Your task to perform on an android device: open app "Reddit" (install if not already installed) and go to login screen Image 0: 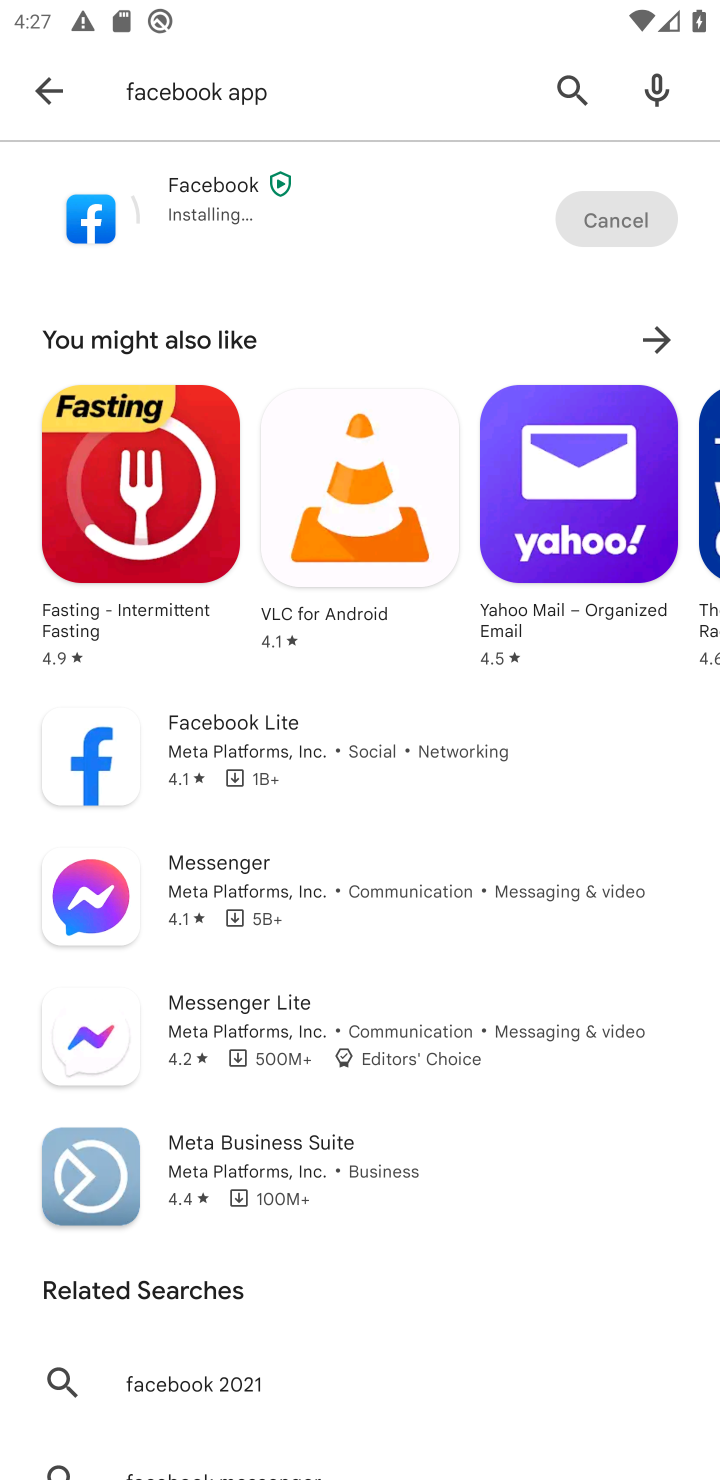
Step 0: click (51, 76)
Your task to perform on an android device: open app "Reddit" (install if not already installed) and go to login screen Image 1: 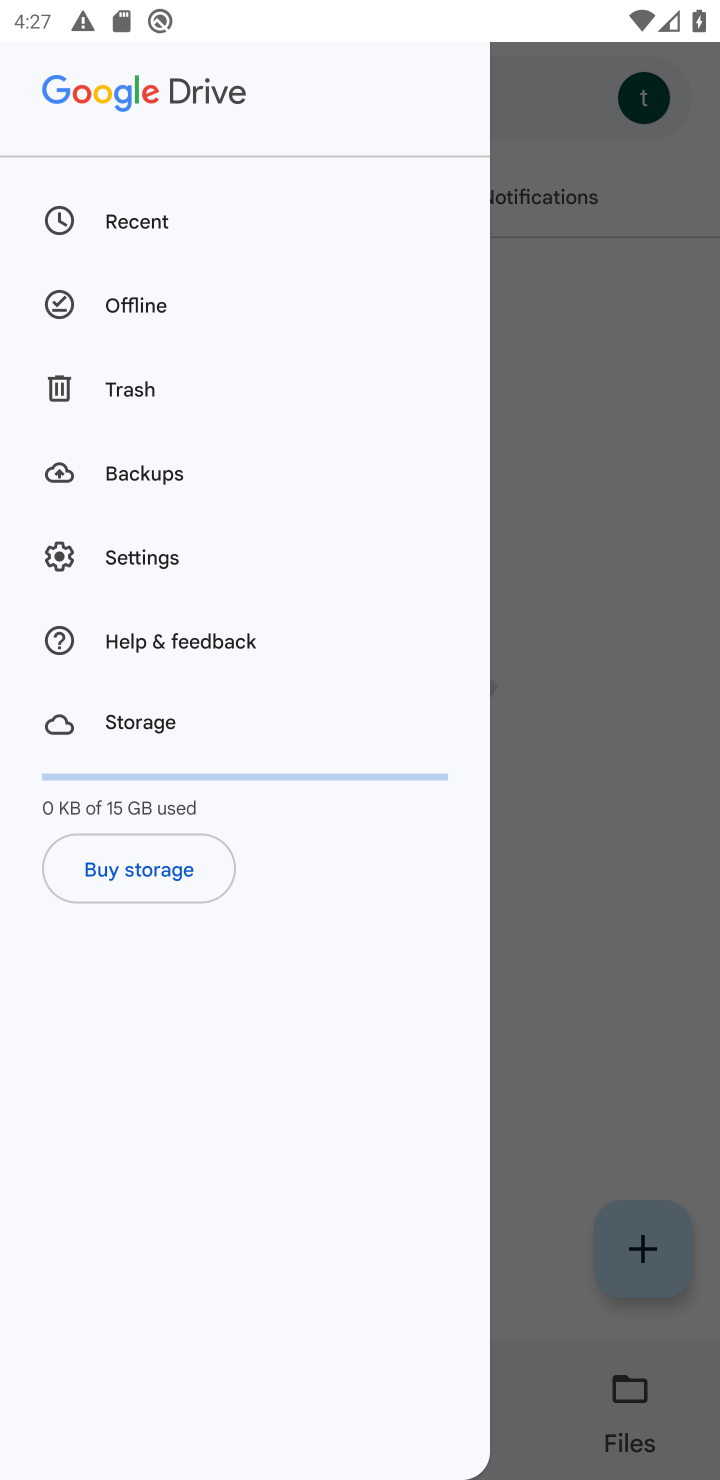
Step 1: click (626, 427)
Your task to perform on an android device: open app "Reddit" (install if not already installed) and go to login screen Image 2: 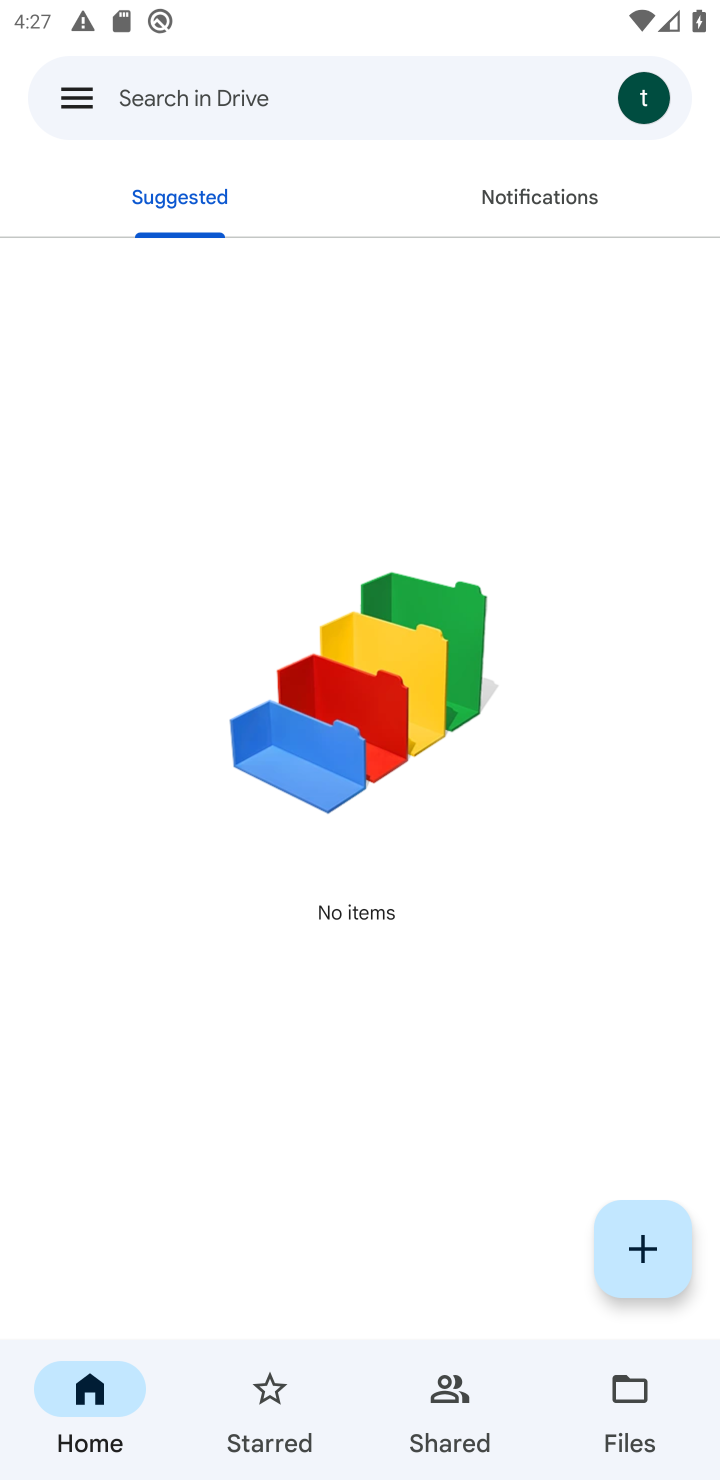
Step 2: press home button
Your task to perform on an android device: open app "Reddit" (install if not already installed) and go to login screen Image 3: 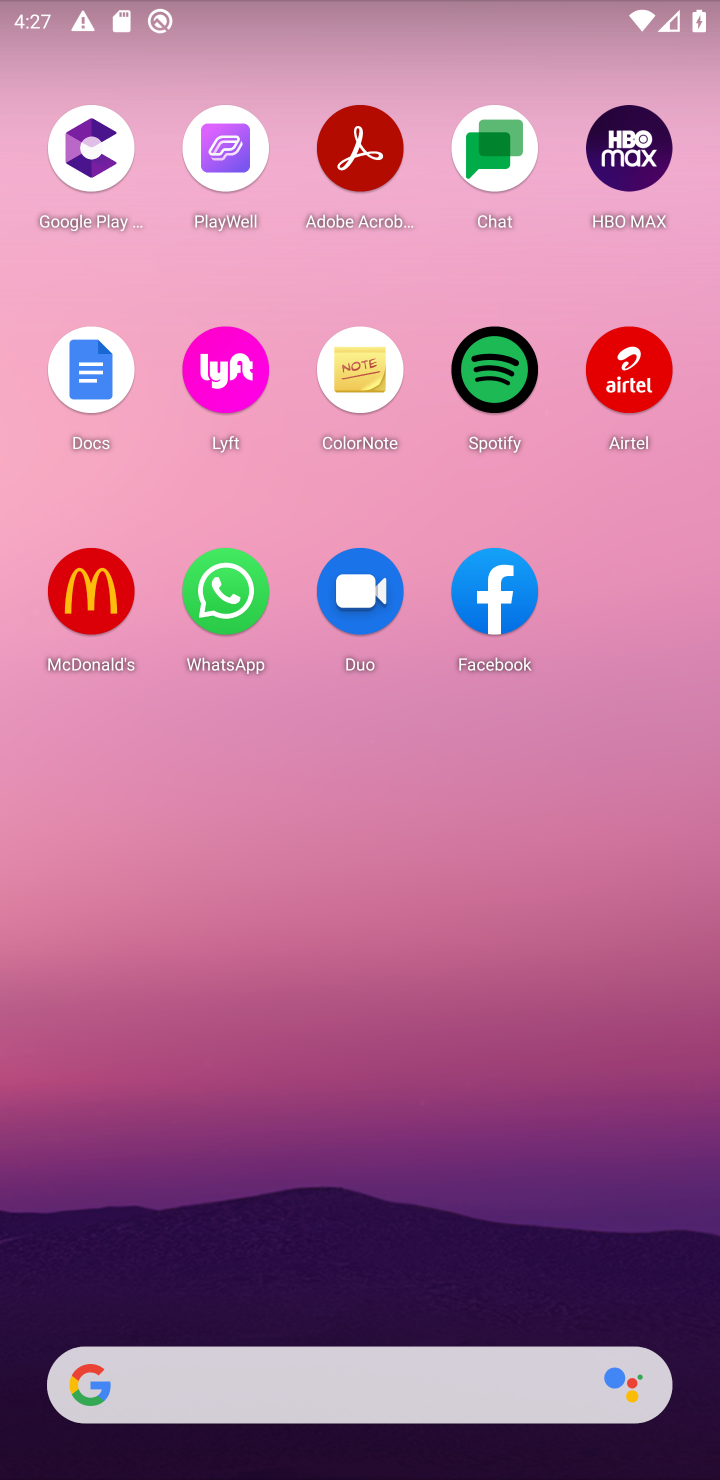
Step 3: drag from (241, 1050) to (308, 616)
Your task to perform on an android device: open app "Reddit" (install if not already installed) and go to login screen Image 4: 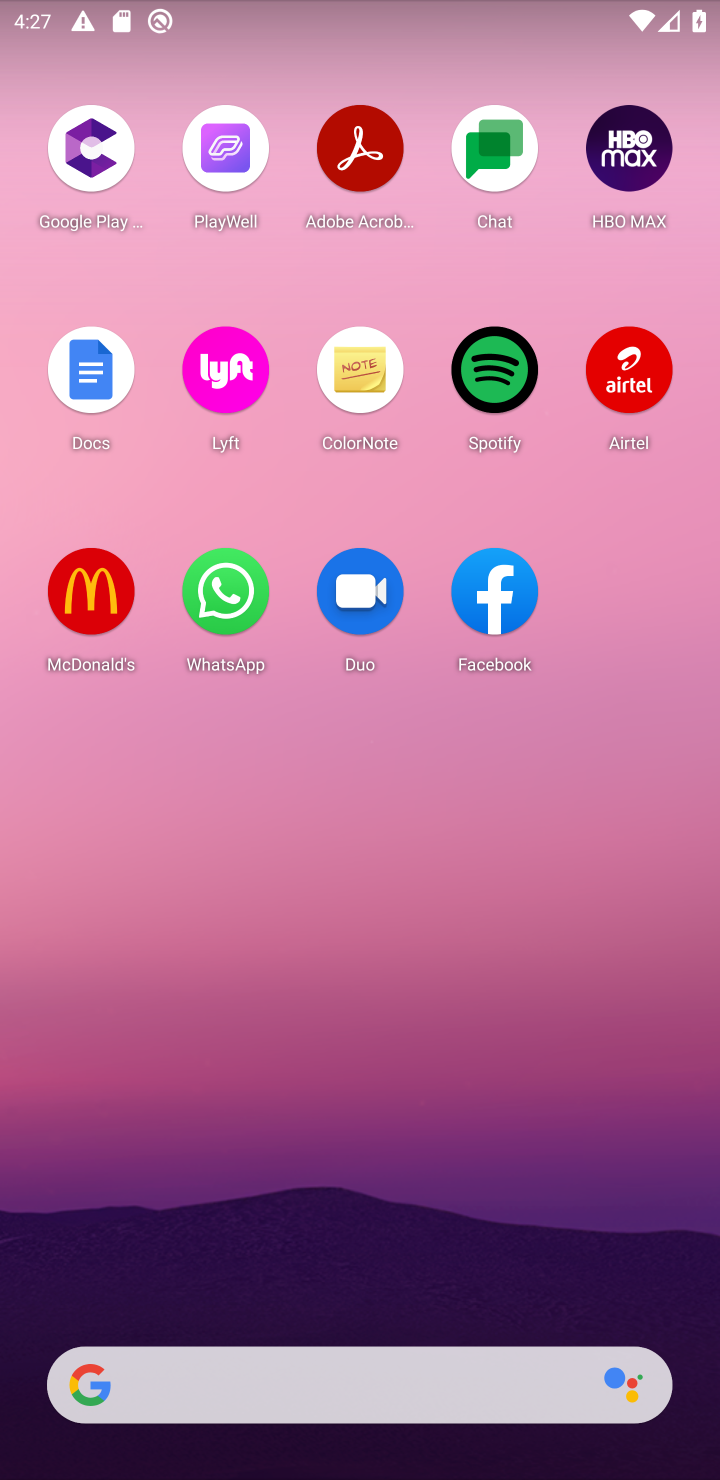
Step 4: drag from (234, 854) to (272, 209)
Your task to perform on an android device: open app "Reddit" (install if not already installed) and go to login screen Image 5: 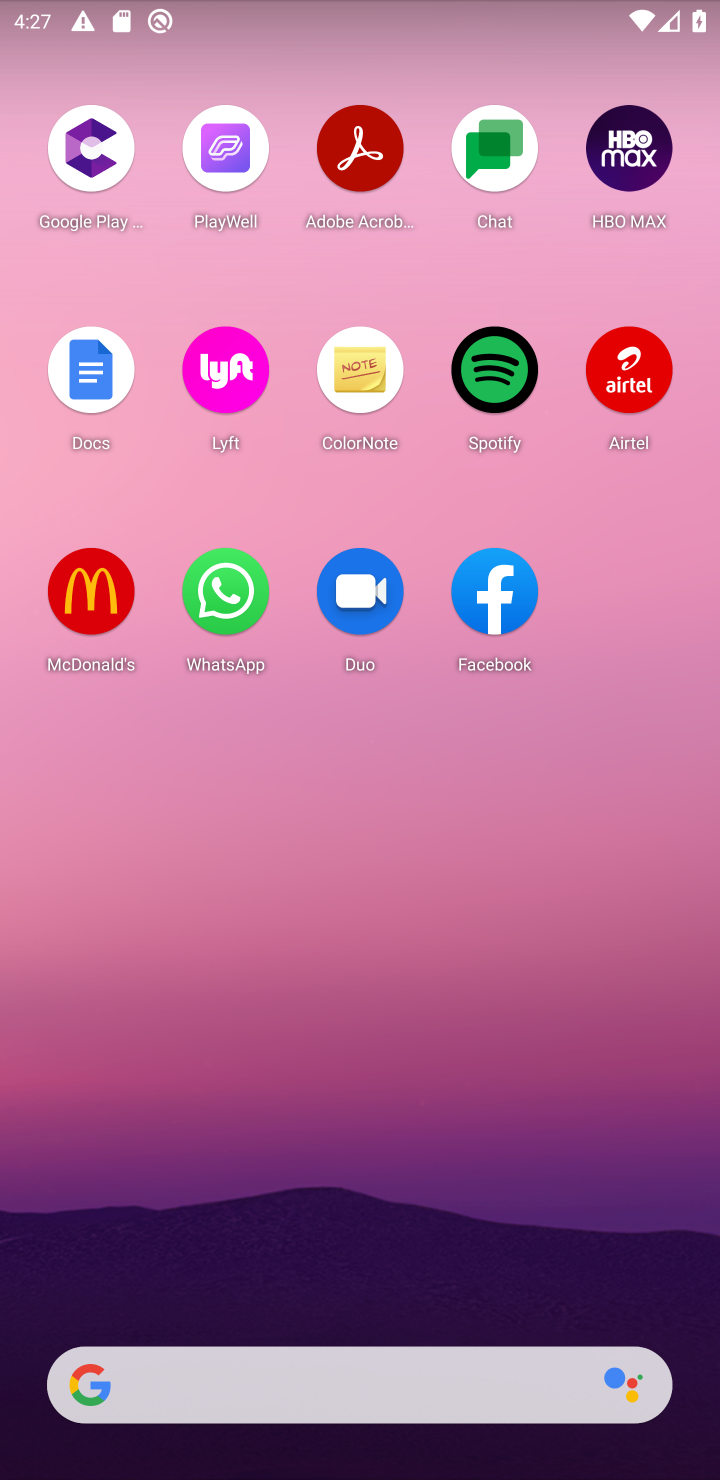
Step 5: drag from (375, 821) to (375, 236)
Your task to perform on an android device: open app "Reddit" (install if not already installed) and go to login screen Image 6: 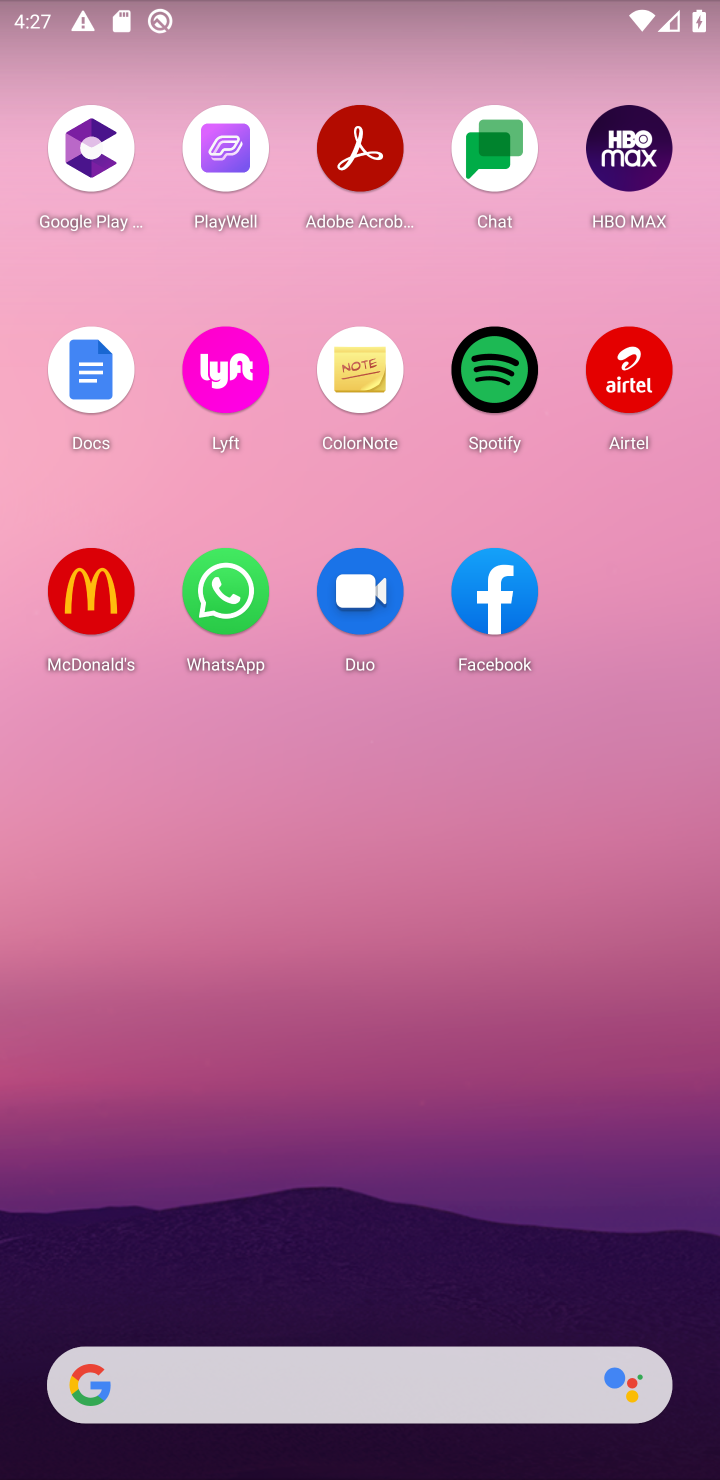
Step 6: drag from (324, 1265) to (311, 289)
Your task to perform on an android device: open app "Reddit" (install if not already installed) and go to login screen Image 7: 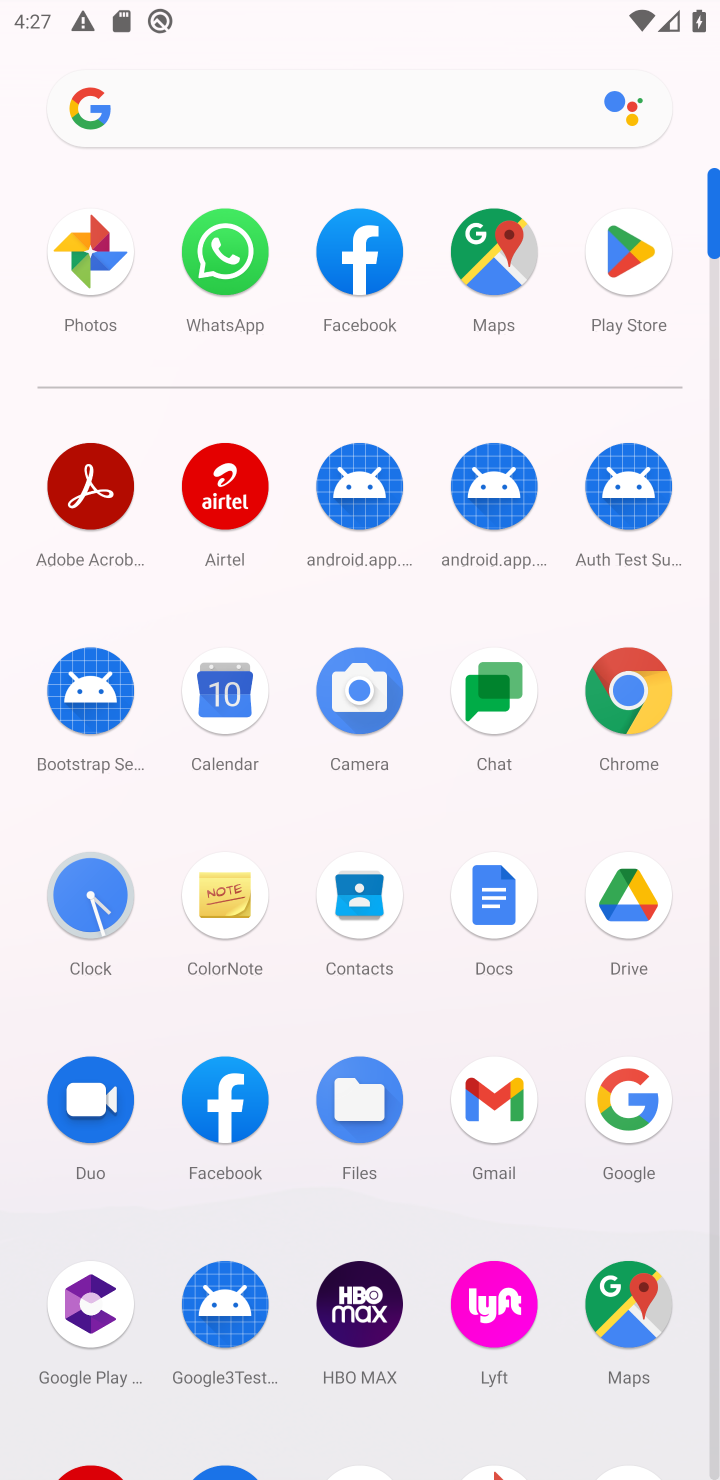
Step 7: click (616, 225)
Your task to perform on an android device: open app "Reddit" (install if not already installed) and go to login screen Image 8: 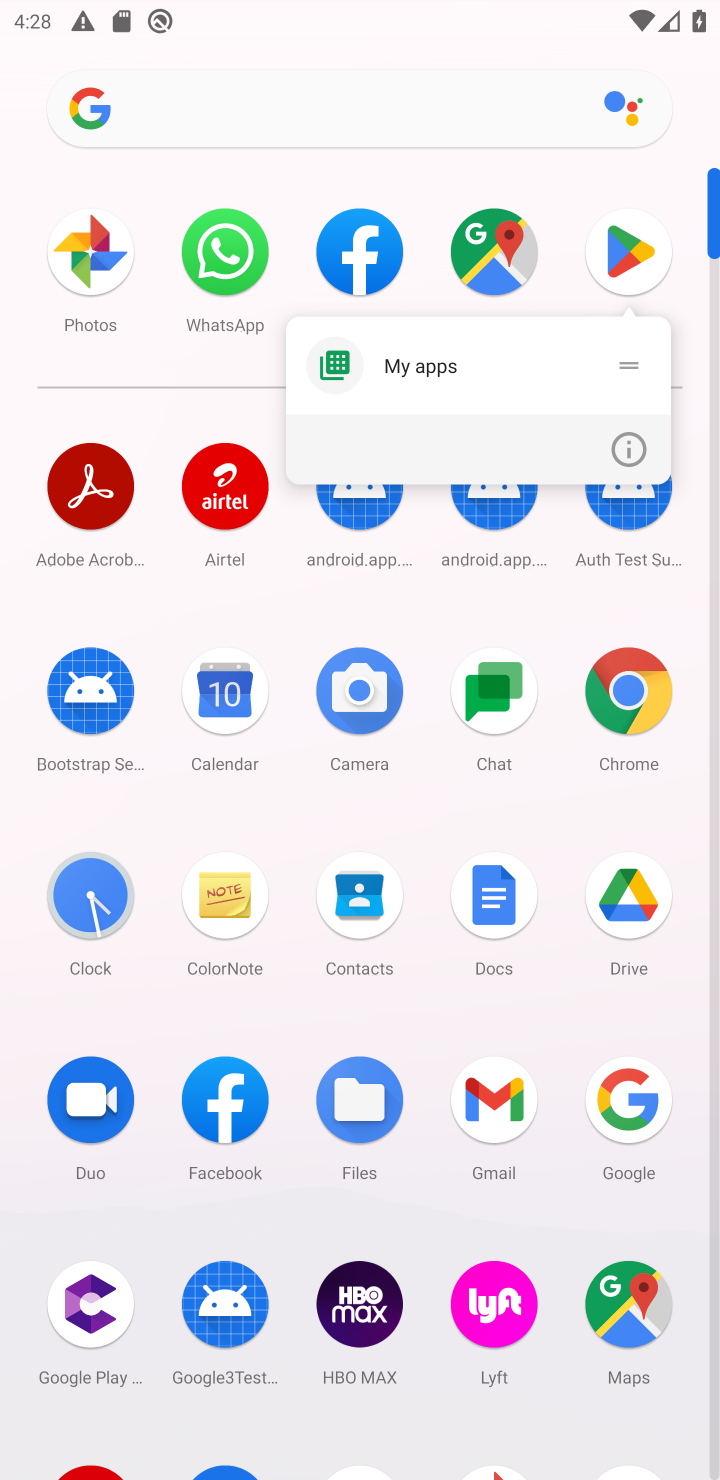
Step 8: click (616, 225)
Your task to perform on an android device: open app "Reddit" (install if not already installed) and go to login screen Image 9: 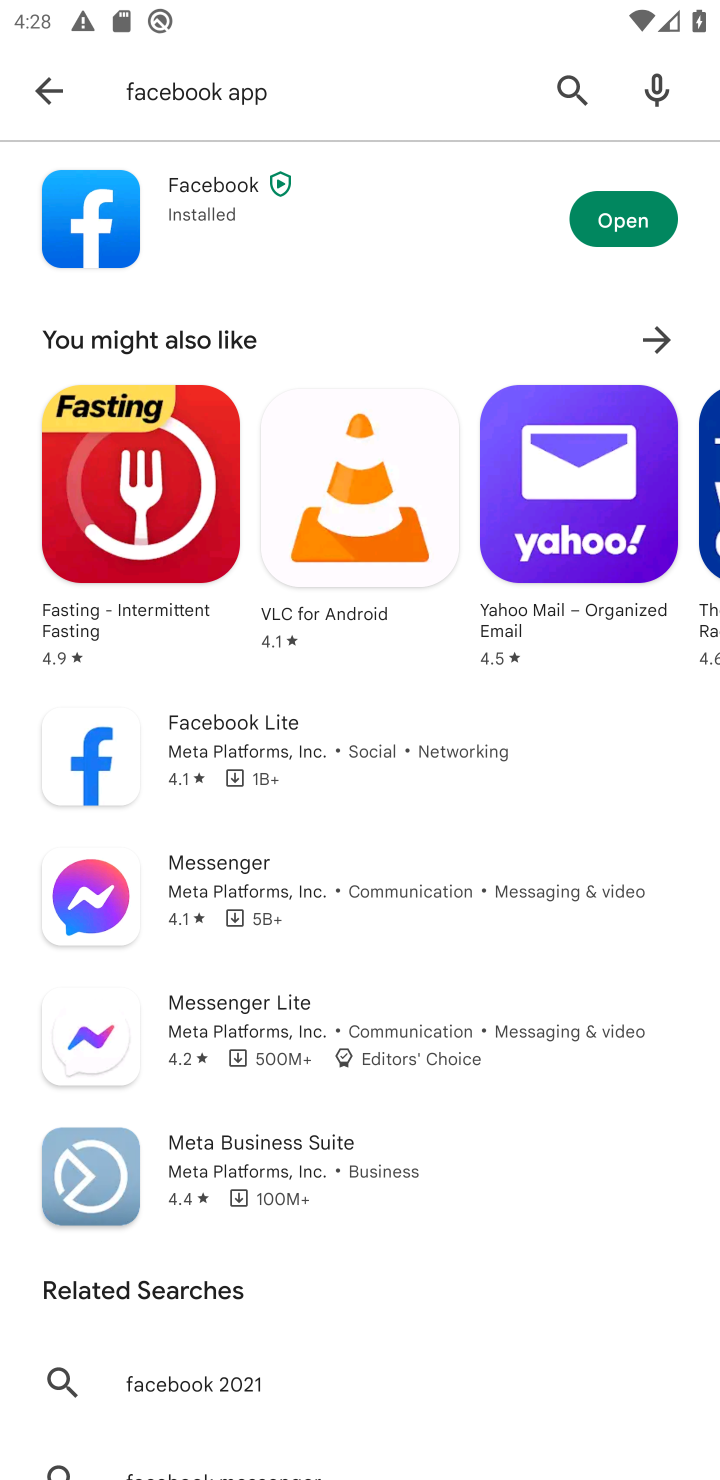
Step 9: click (55, 68)
Your task to perform on an android device: open app "Reddit" (install if not already installed) and go to login screen Image 10: 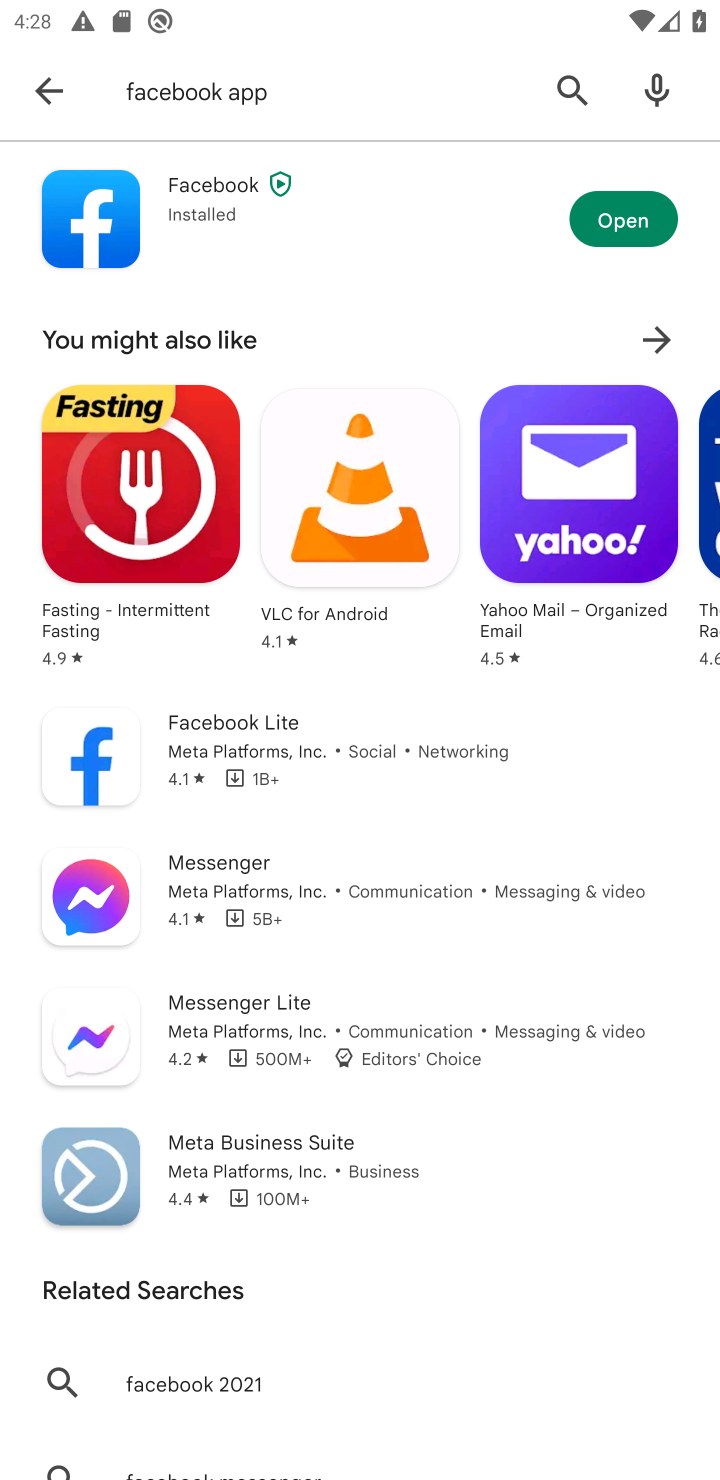
Step 10: click (50, 78)
Your task to perform on an android device: open app "Reddit" (install if not already installed) and go to login screen Image 11: 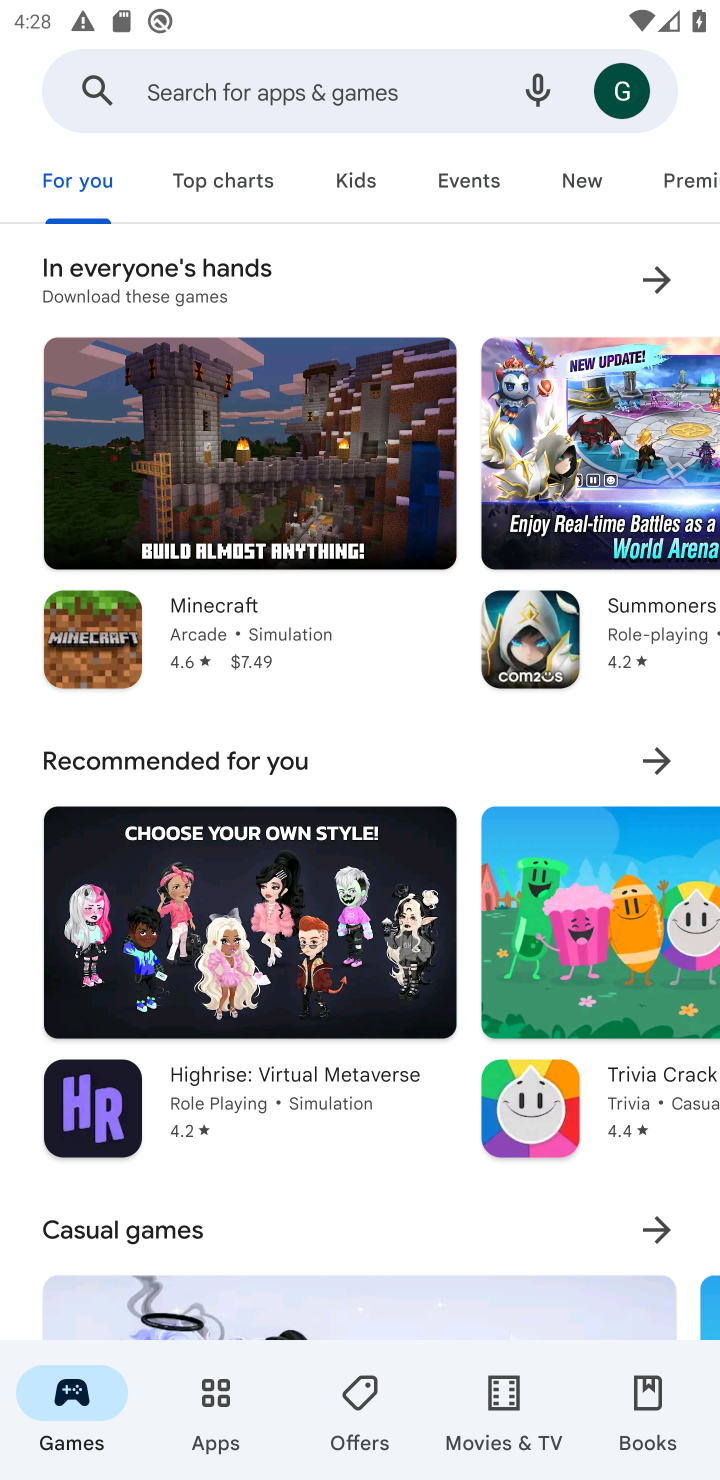
Step 11: click (165, 77)
Your task to perform on an android device: open app "Reddit" (install if not already installed) and go to login screen Image 12: 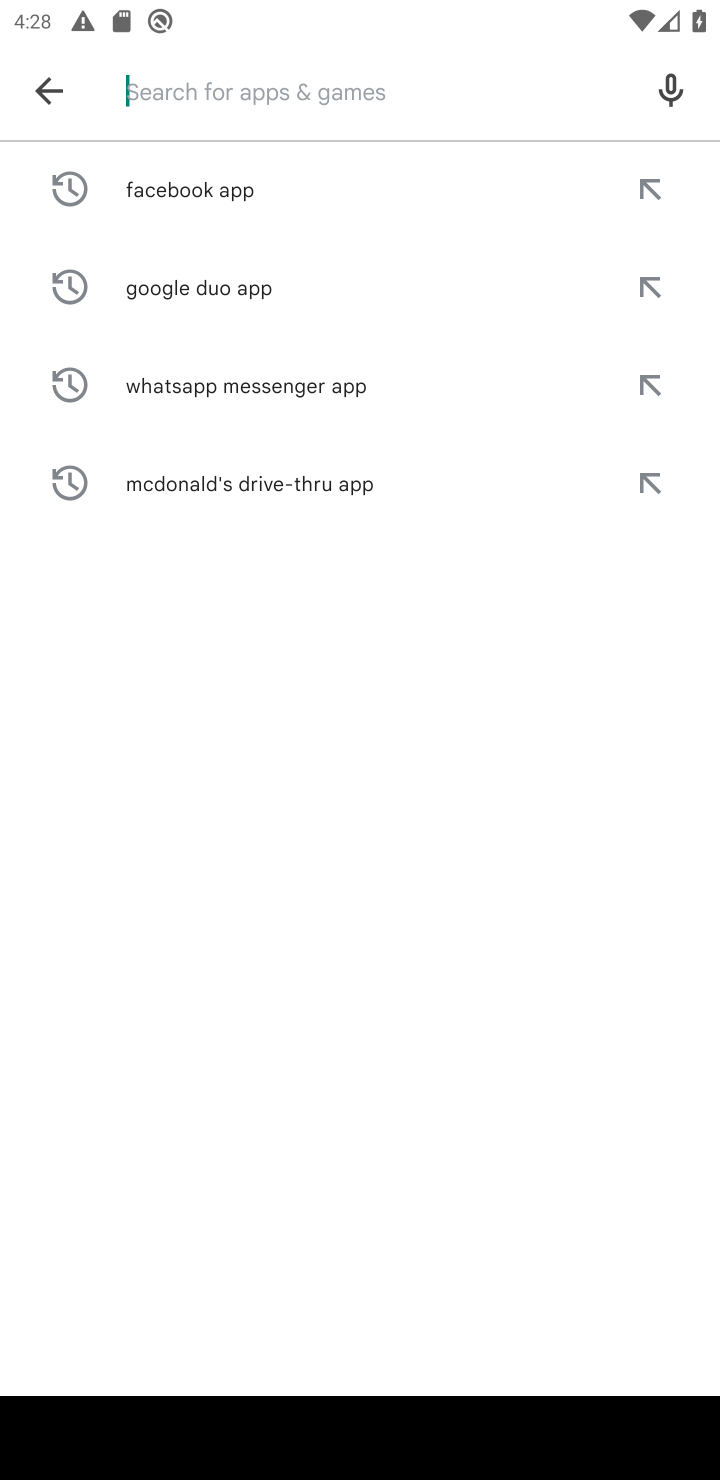
Step 12: type "reddit"
Your task to perform on an android device: open app "Reddit" (install if not already installed) and go to login screen Image 13: 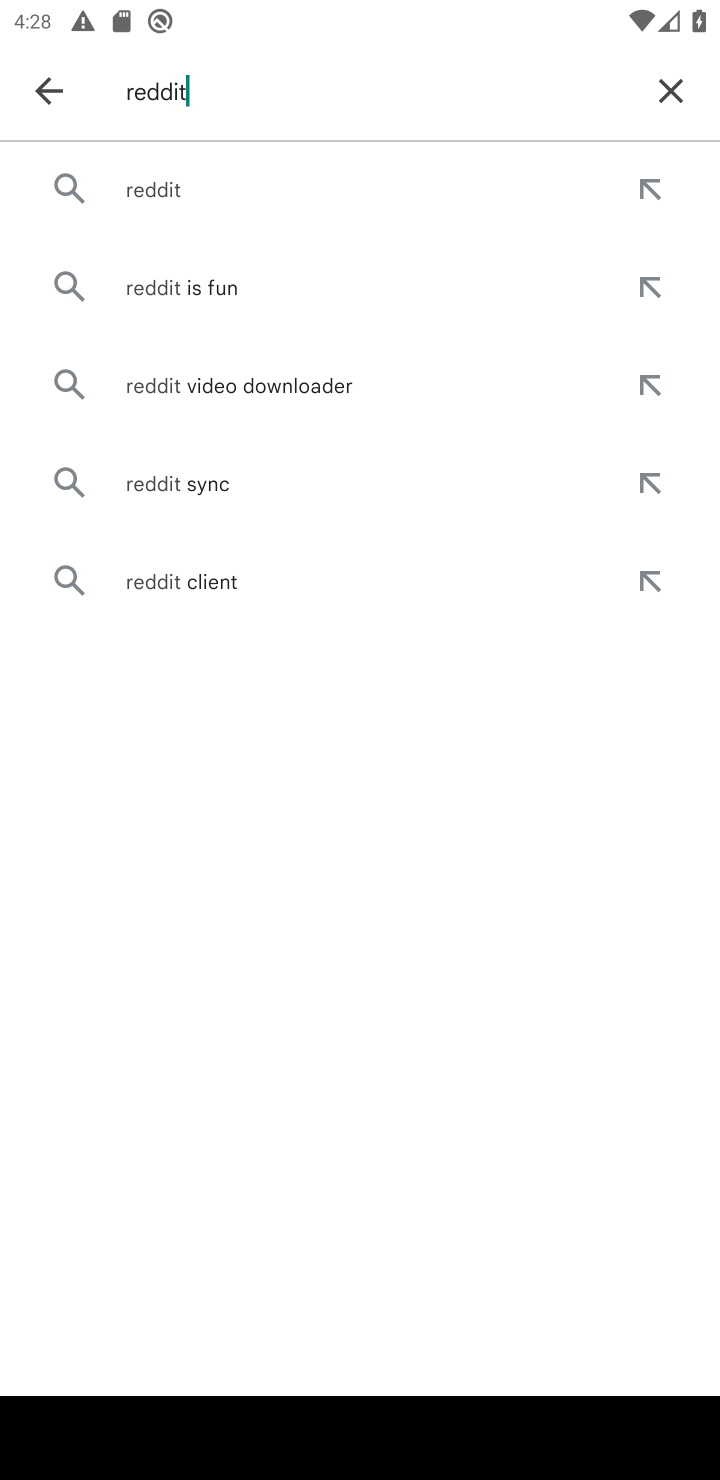
Step 13: click (256, 191)
Your task to perform on an android device: open app "Reddit" (install if not already installed) and go to login screen Image 14: 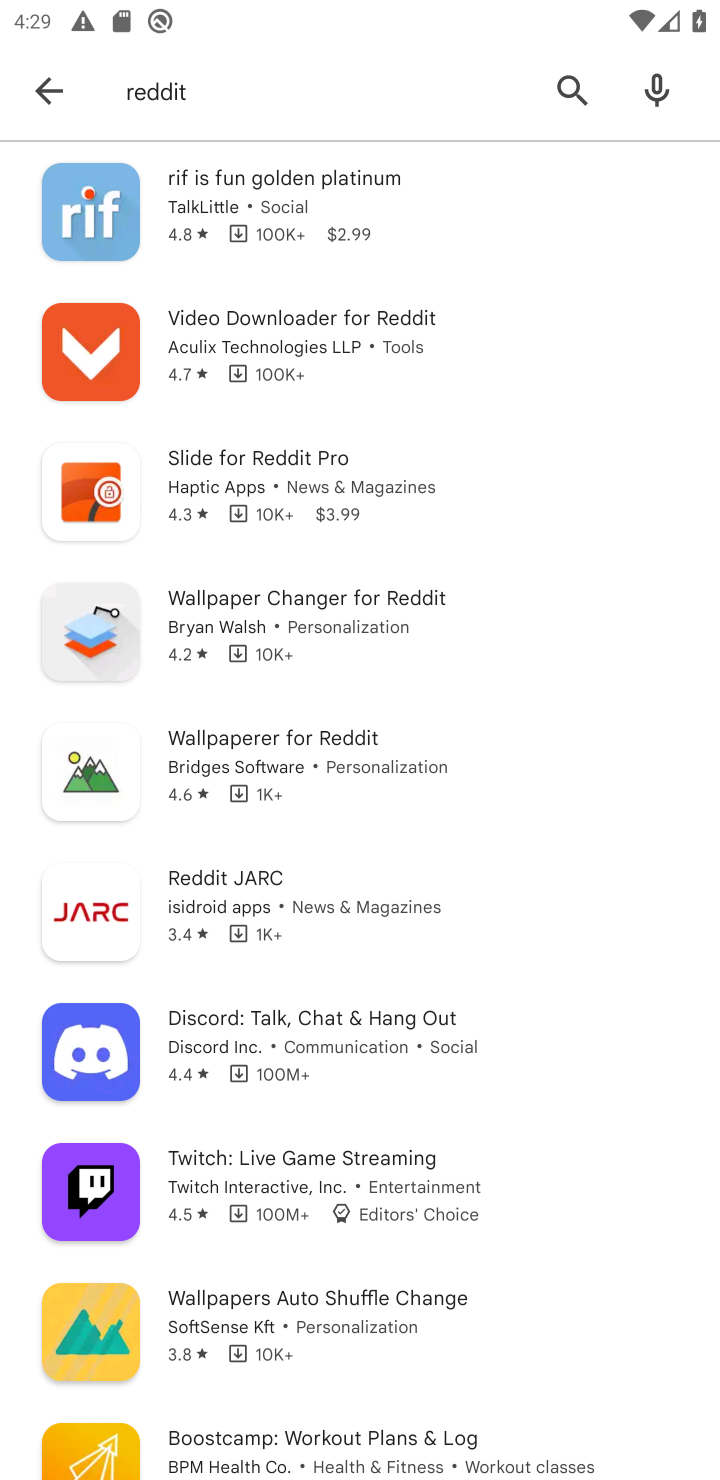
Step 14: task complete